Your task to perform on an android device: check android version Image 0: 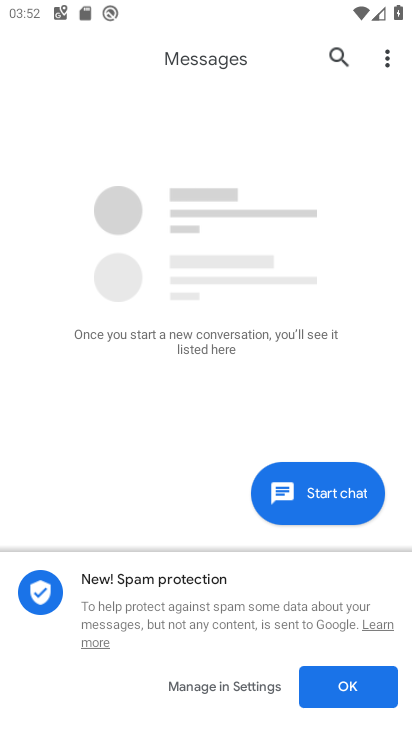
Step 0: press home button
Your task to perform on an android device: check android version Image 1: 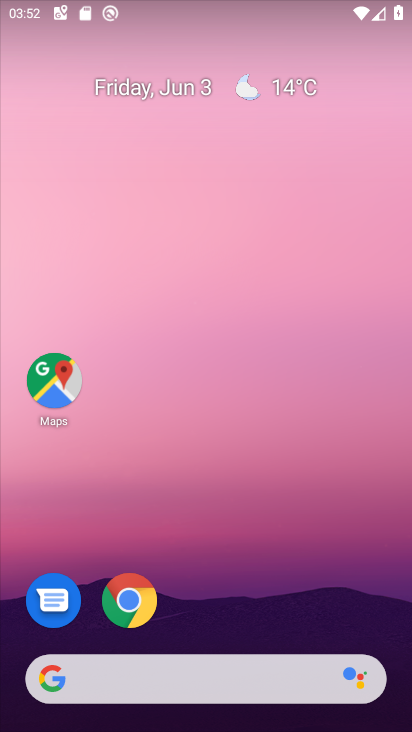
Step 1: drag from (267, 594) to (245, 165)
Your task to perform on an android device: check android version Image 2: 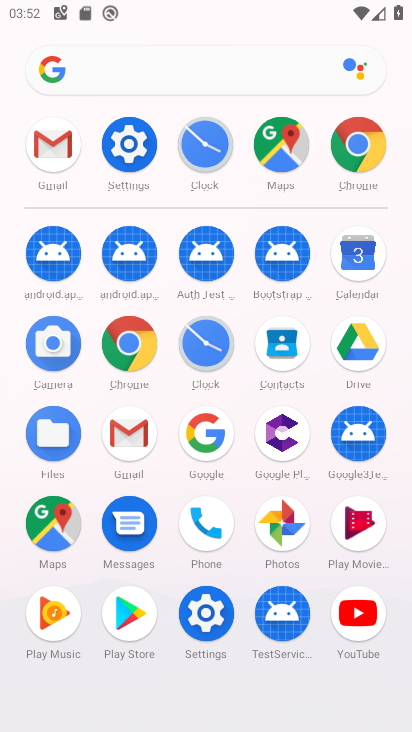
Step 2: click (142, 152)
Your task to perform on an android device: check android version Image 3: 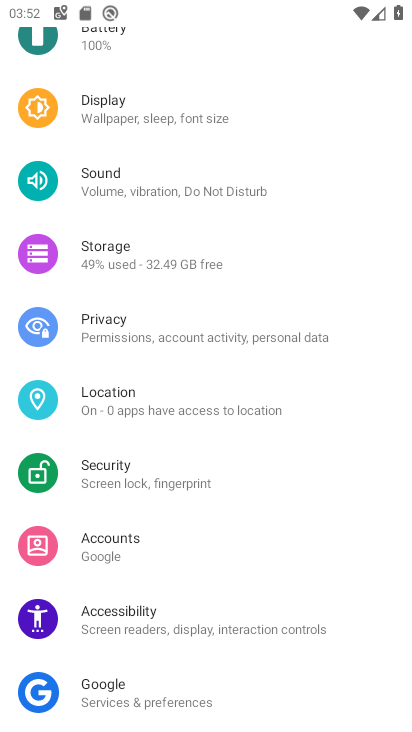
Step 3: drag from (253, 658) to (262, 180)
Your task to perform on an android device: check android version Image 4: 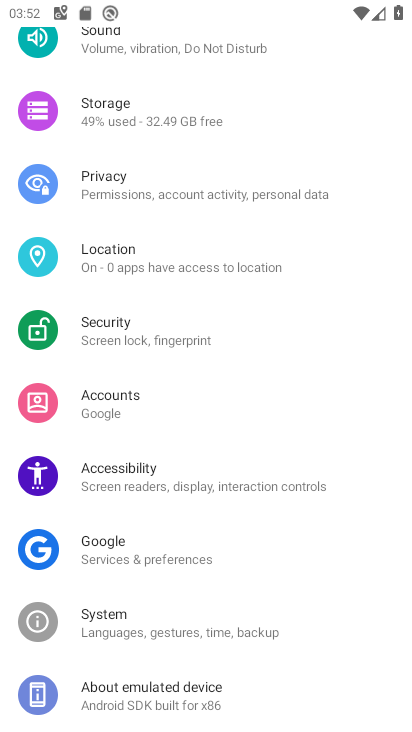
Step 4: click (161, 697)
Your task to perform on an android device: check android version Image 5: 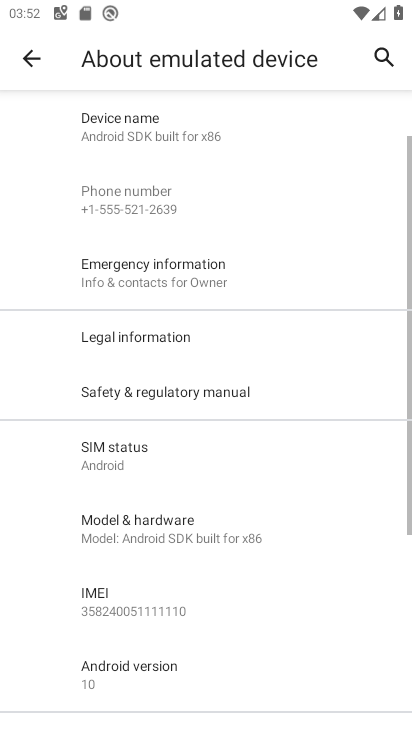
Step 5: drag from (289, 577) to (325, 153)
Your task to perform on an android device: check android version Image 6: 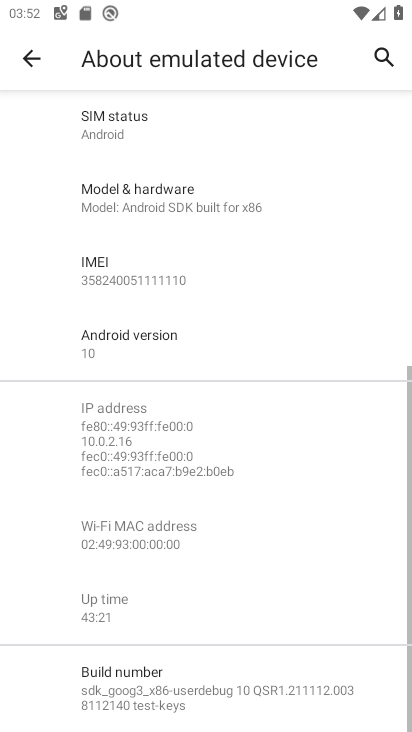
Step 6: click (126, 340)
Your task to perform on an android device: check android version Image 7: 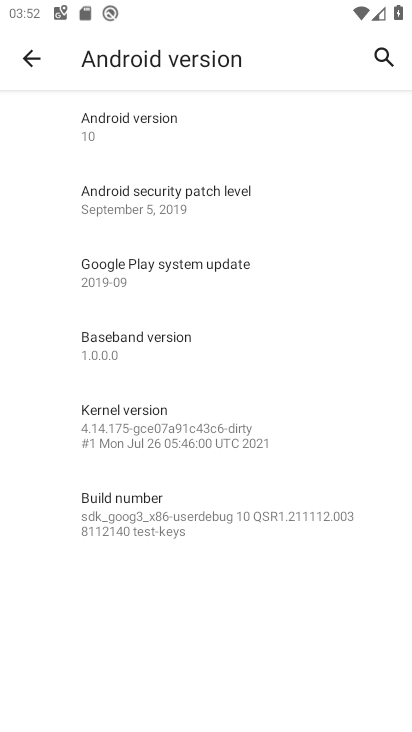
Step 7: task complete